Your task to perform on an android device: check storage Image 0: 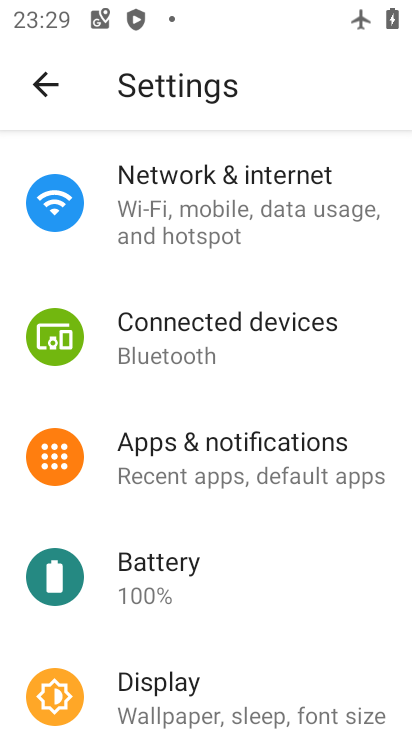
Step 0: click (209, 215)
Your task to perform on an android device: check storage Image 1: 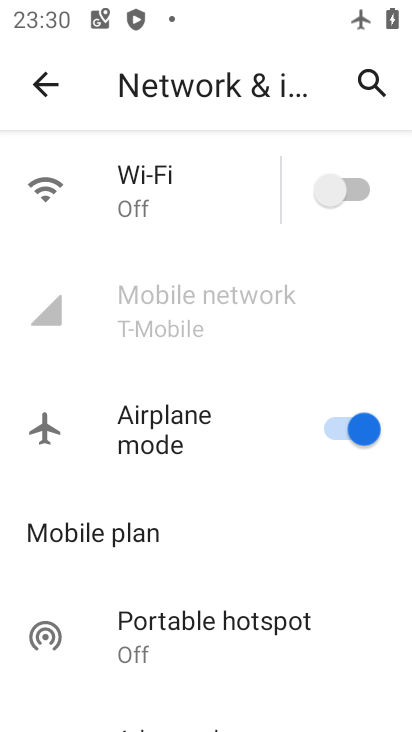
Step 1: task complete